Your task to perform on an android device: empty trash in google photos Image 0: 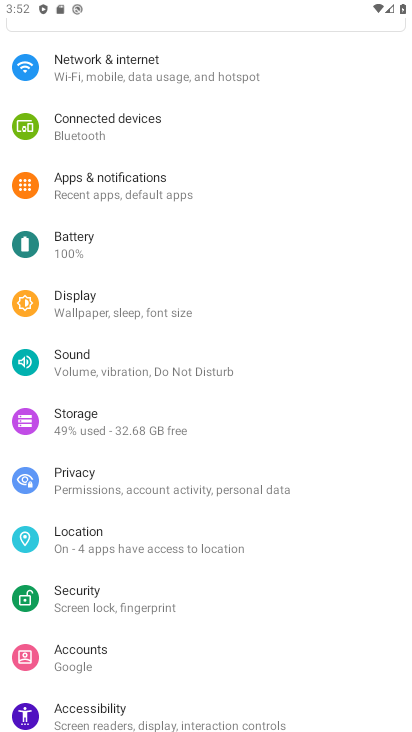
Step 0: press home button
Your task to perform on an android device: empty trash in google photos Image 1: 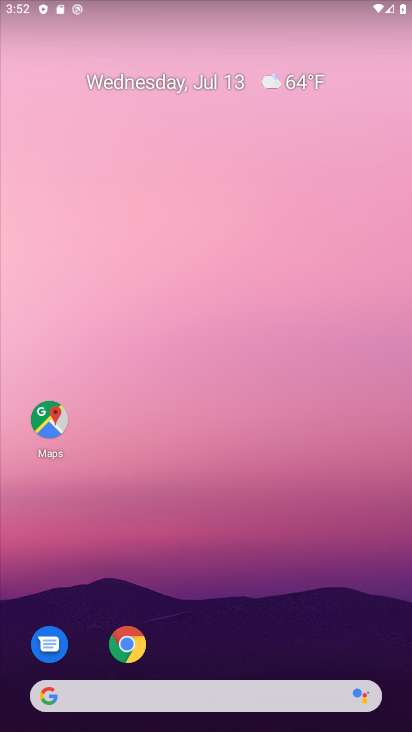
Step 1: drag from (202, 581) to (185, 187)
Your task to perform on an android device: empty trash in google photos Image 2: 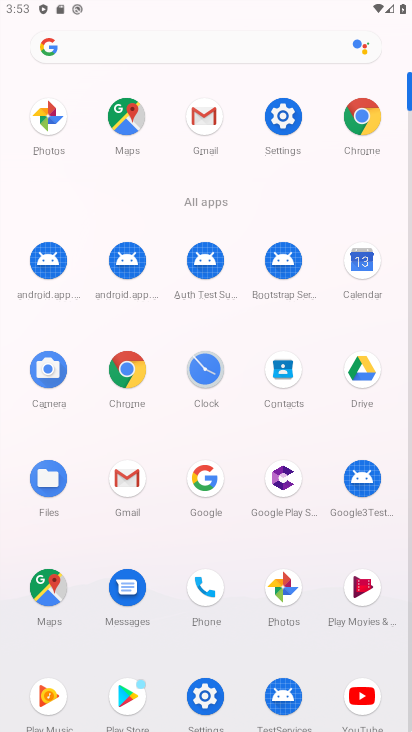
Step 2: click (48, 114)
Your task to perform on an android device: empty trash in google photos Image 3: 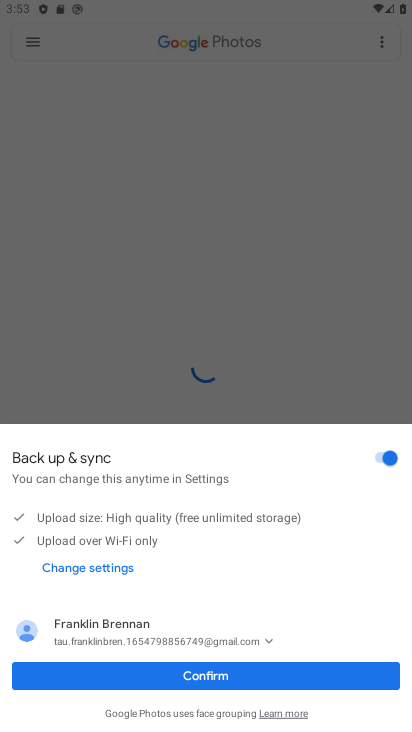
Step 3: click (217, 672)
Your task to perform on an android device: empty trash in google photos Image 4: 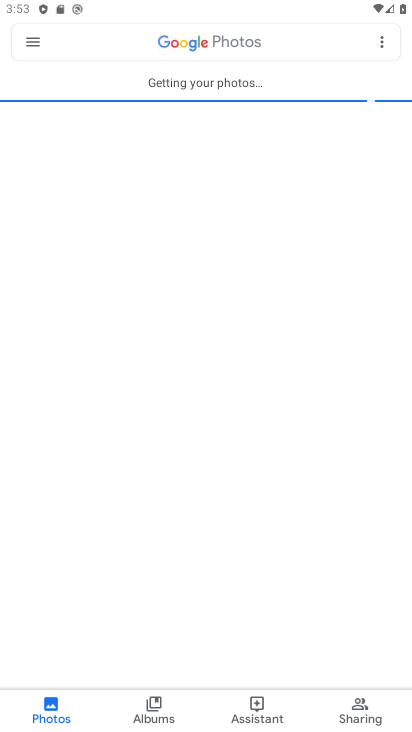
Step 4: click (30, 35)
Your task to perform on an android device: empty trash in google photos Image 5: 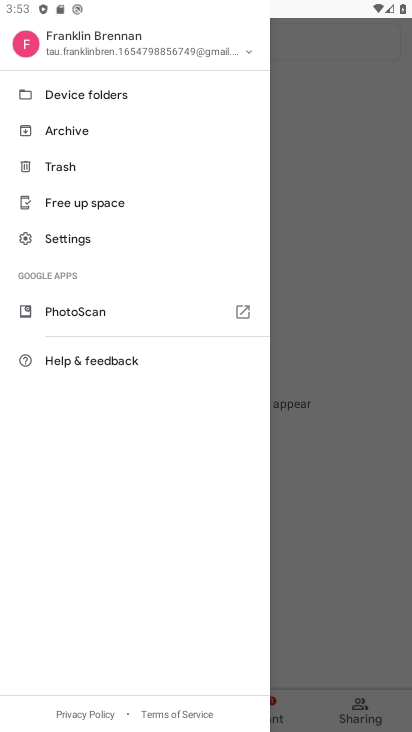
Step 5: click (55, 158)
Your task to perform on an android device: empty trash in google photos Image 6: 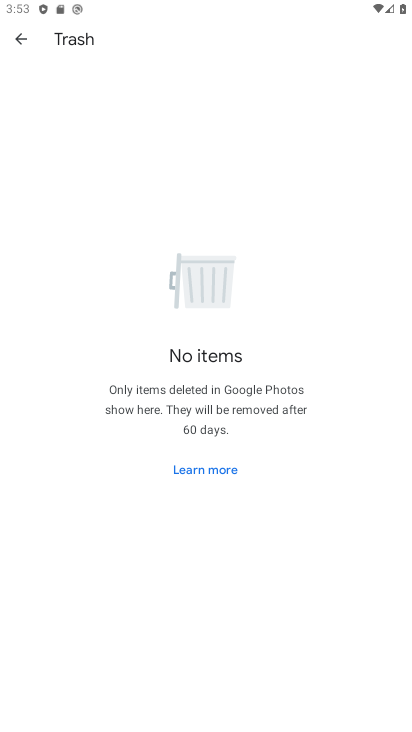
Step 6: task complete